Your task to perform on an android device: Go to wifi settings Image 0: 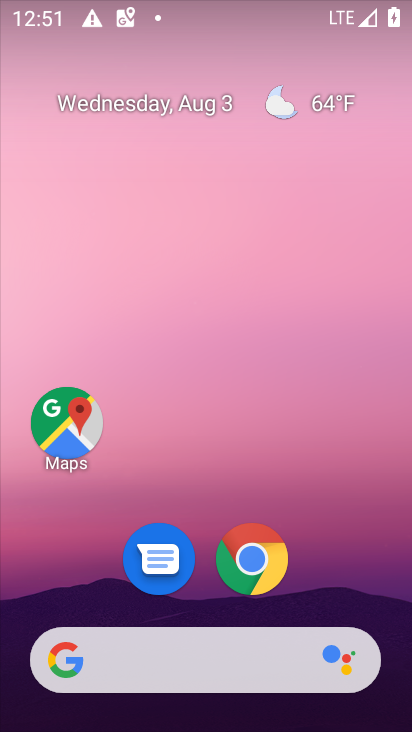
Step 0: drag from (202, 720) to (198, 344)
Your task to perform on an android device: Go to wifi settings Image 1: 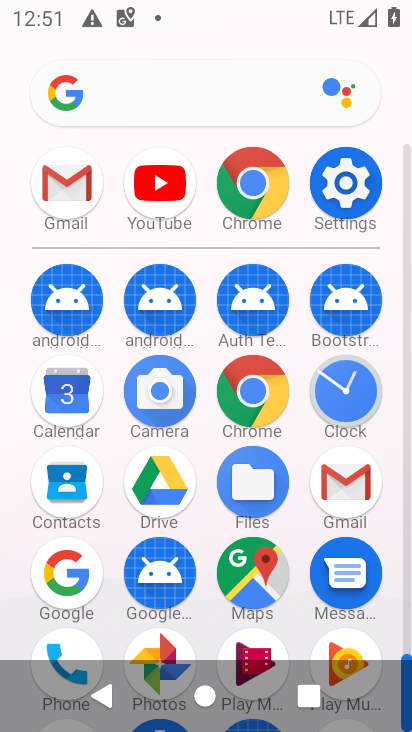
Step 1: click (352, 187)
Your task to perform on an android device: Go to wifi settings Image 2: 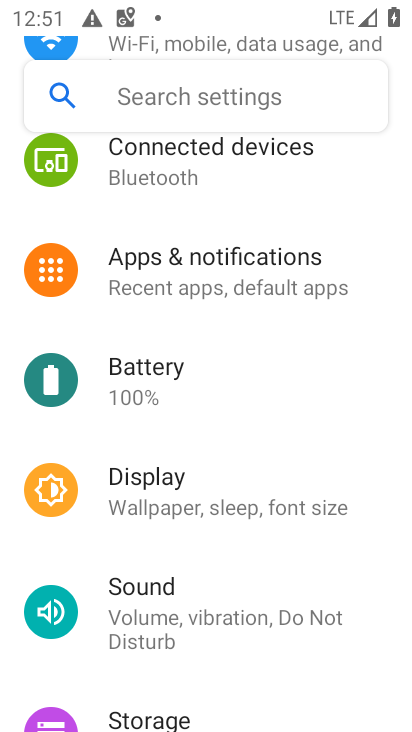
Step 2: drag from (306, 205) to (245, 663)
Your task to perform on an android device: Go to wifi settings Image 3: 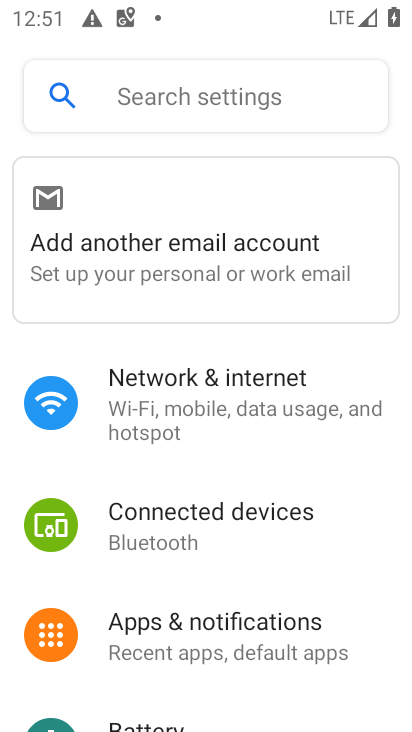
Step 3: click (145, 398)
Your task to perform on an android device: Go to wifi settings Image 4: 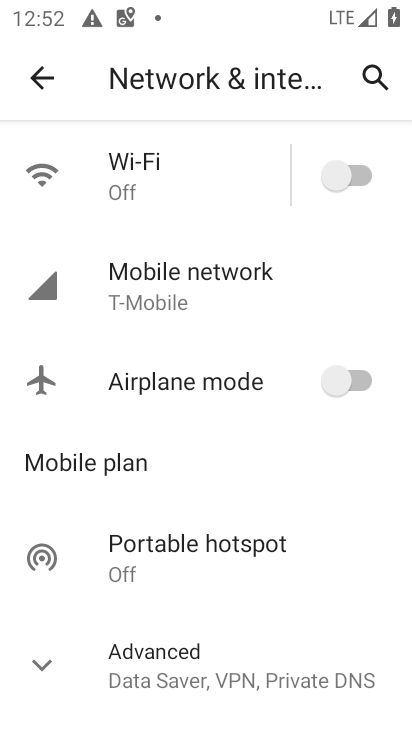
Step 4: click (144, 165)
Your task to perform on an android device: Go to wifi settings Image 5: 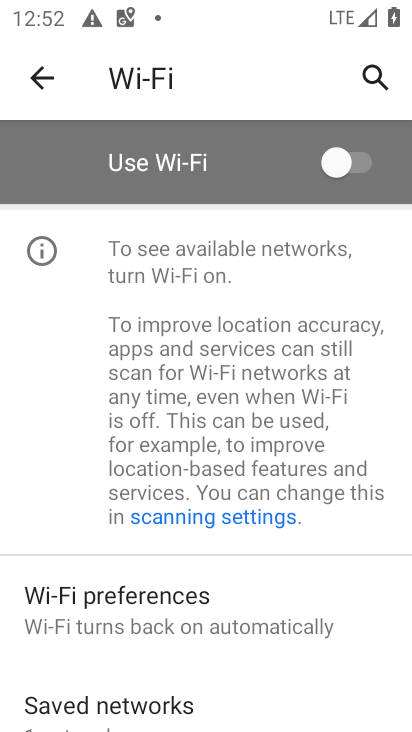
Step 5: task complete